Your task to perform on an android device: turn off translation in the chrome app Image 0: 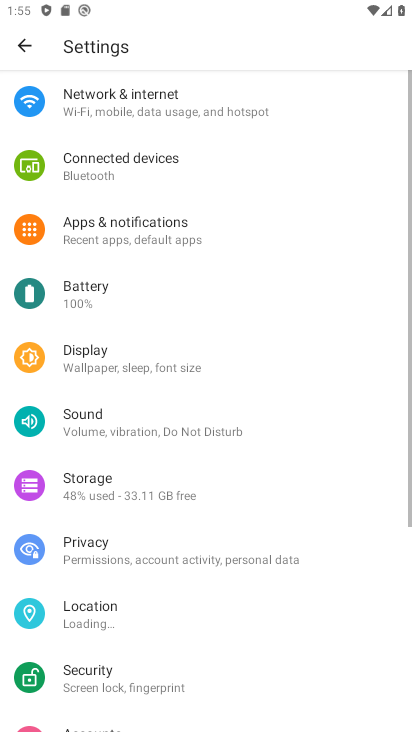
Step 0: press back button
Your task to perform on an android device: turn off translation in the chrome app Image 1: 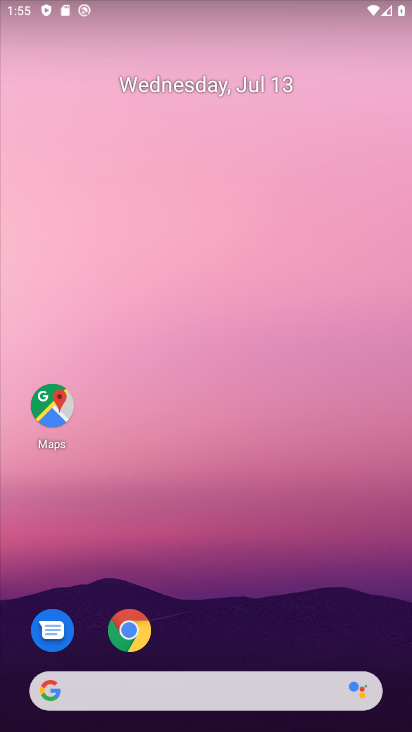
Step 1: drag from (264, 704) to (130, 135)
Your task to perform on an android device: turn off translation in the chrome app Image 2: 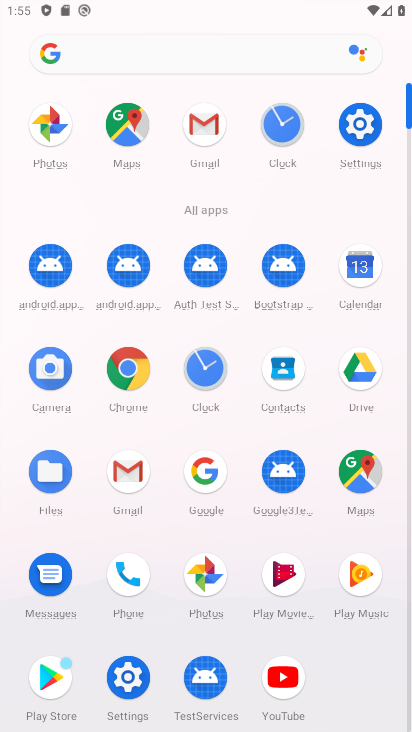
Step 2: click (130, 375)
Your task to perform on an android device: turn off translation in the chrome app Image 3: 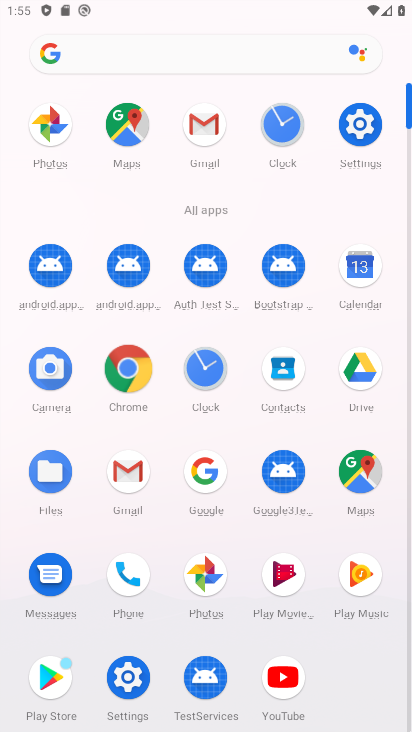
Step 3: click (130, 376)
Your task to perform on an android device: turn off translation in the chrome app Image 4: 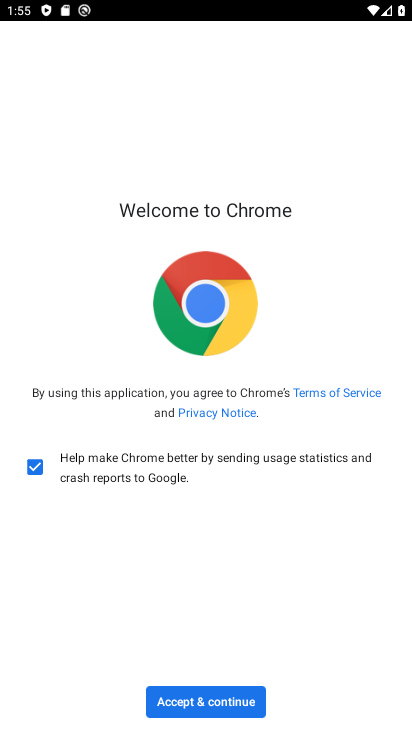
Step 4: click (210, 697)
Your task to perform on an android device: turn off translation in the chrome app Image 5: 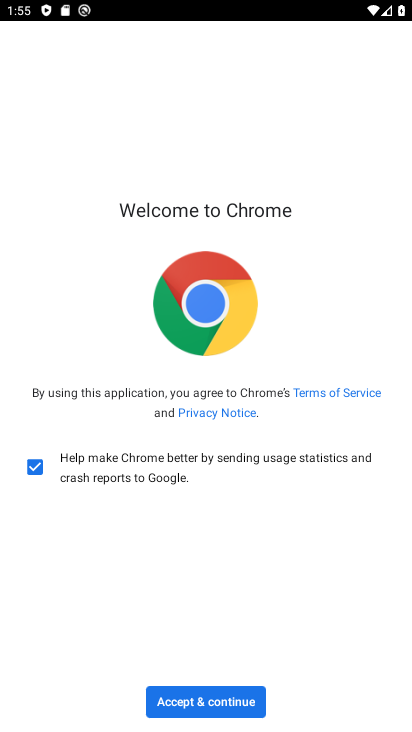
Step 5: click (210, 697)
Your task to perform on an android device: turn off translation in the chrome app Image 6: 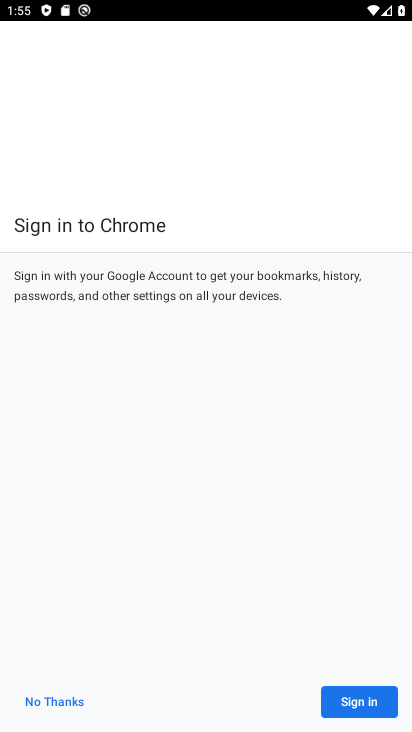
Step 6: click (210, 697)
Your task to perform on an android device: turn off translation in the chrome app Image 7: 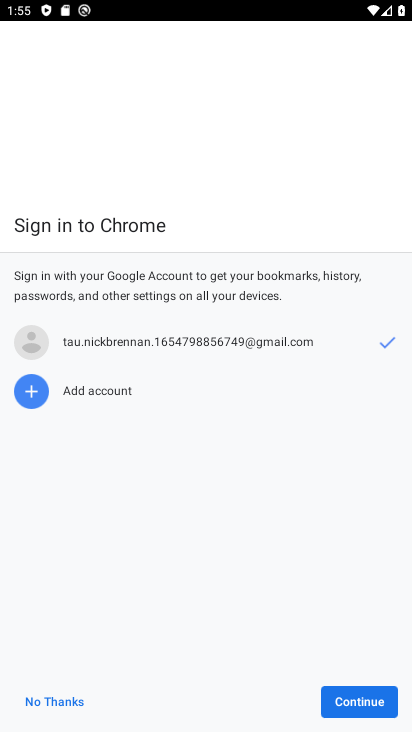
Step 7: click (365, 707)
Your task to perform on an android device: turn off translation in the chrome app Image 8: 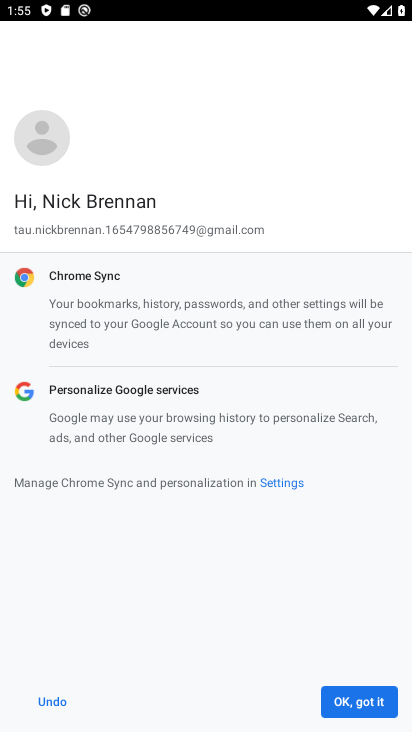
Step 8: click (365, 707)
Your task to perform on an android device: turn off translation in the chrome app Image 9: 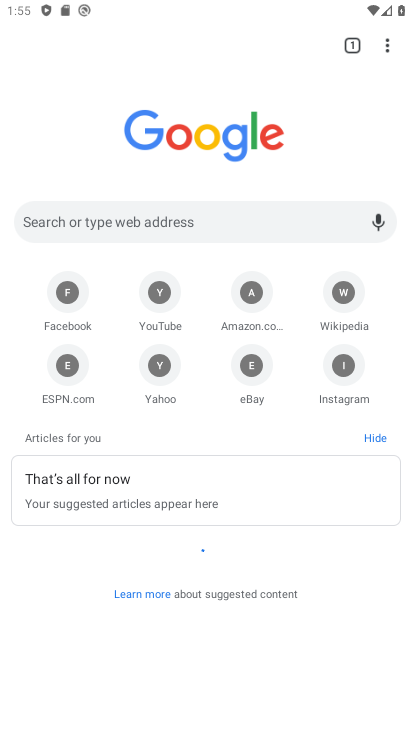
Step 9: click (390, 43)
Your task to perform on an android device: turn off translation in the chrome app Image 10: 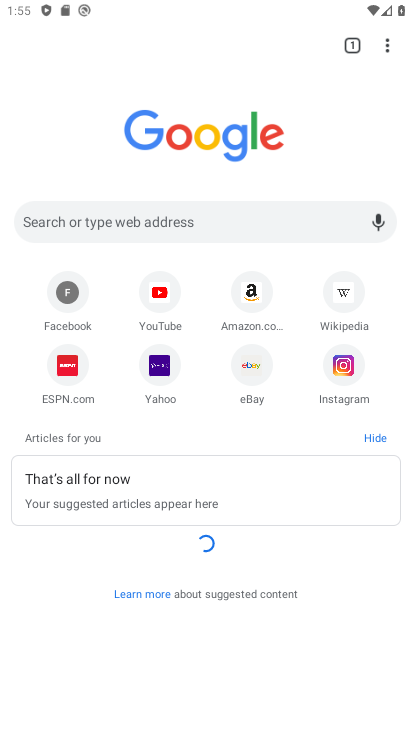
Step 10: click (389, 46)
Your task to perform on an android device: turn off translation in the chrome app Image 11: 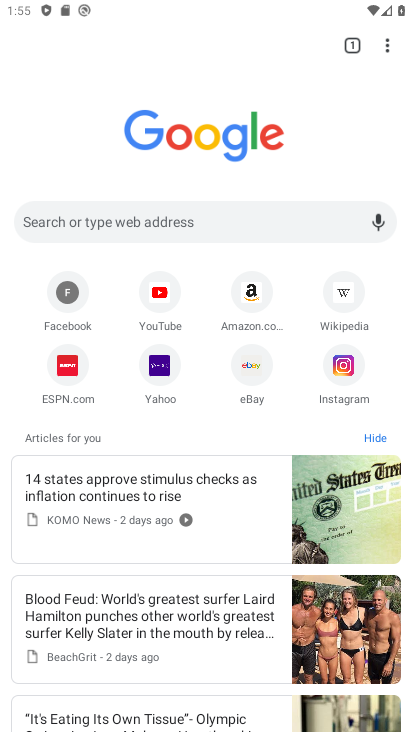
Step 11: click (384, 45)
Your task to perform on an android device: turn off translation in the chrome app Image 12: 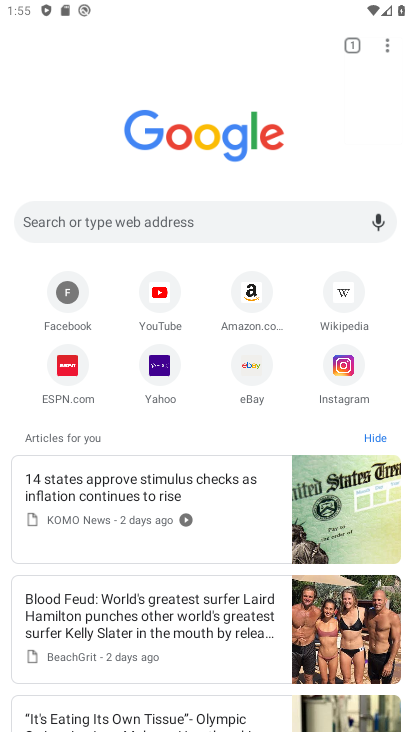
Step 12: click (385, 46)
Your task to perform on an android device: turn off translation in the chrome app Image 13: 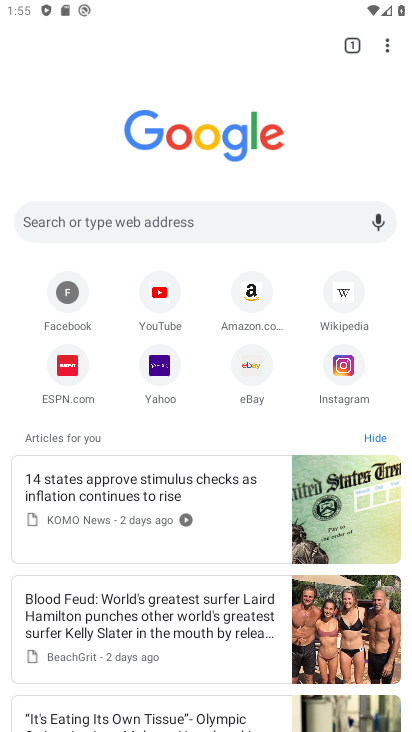
Step 13: click (385, 46)
Your task to perform on an android device: turn off translation in the chrome app Image 14: 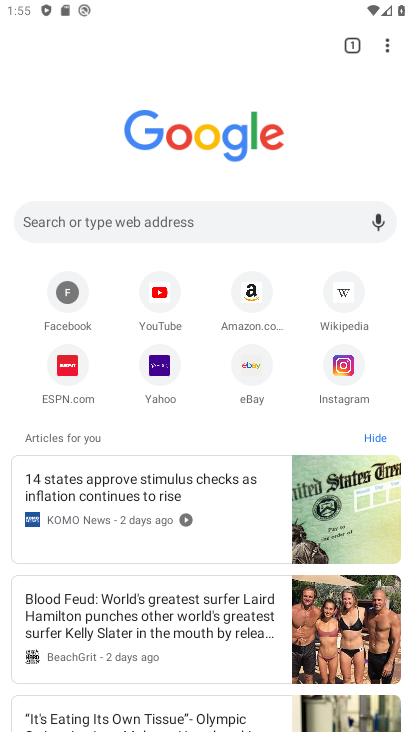
Step 14: drag from (385, 56) to (216, 380)
Your task to perform on an android device: turn off translation in the chrome app Image 15: 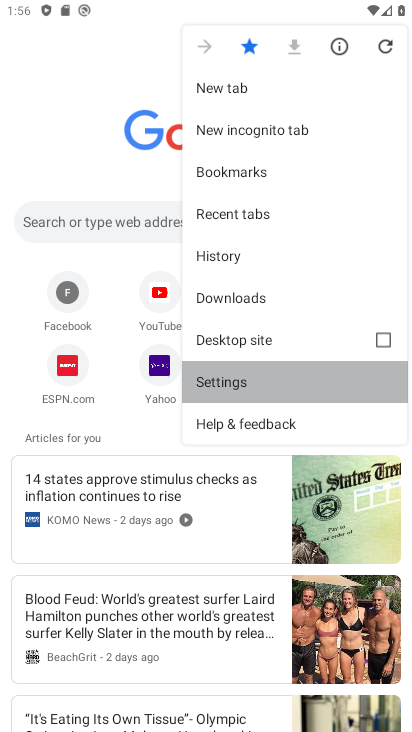
Step 15: click (216, 377)
Your task to perform on an android device: turn off translation in the chrome app Image 16: 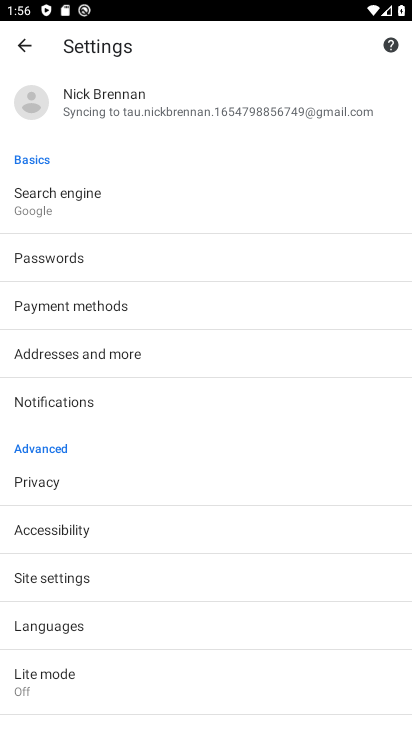
Step 16: click (54, 627)
Your task to perform on an android device: turn off translation in the chrome app Image 17: 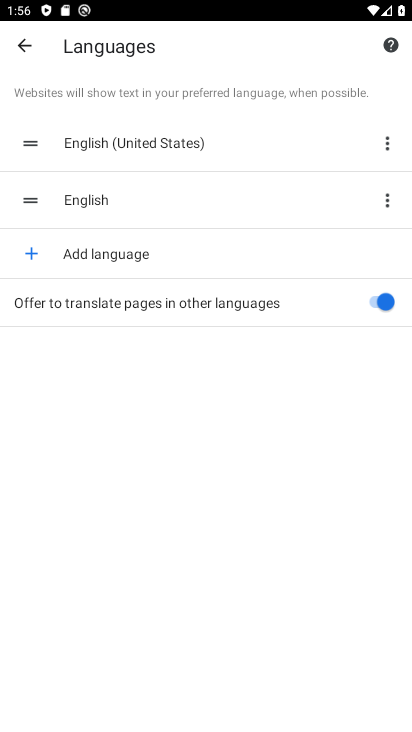
Step 17: click (383, 304)
Your task to perform on an android device: turn off translation in the chrome app Image 18: 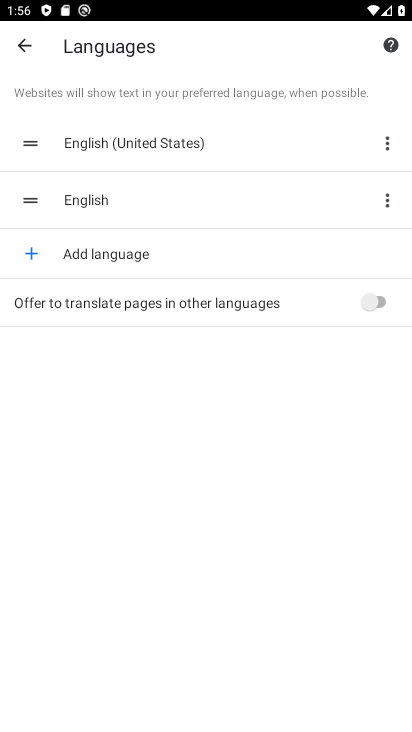
Step 18: task complete